Your task to perform on an android device: change text size in settings app Image 0: 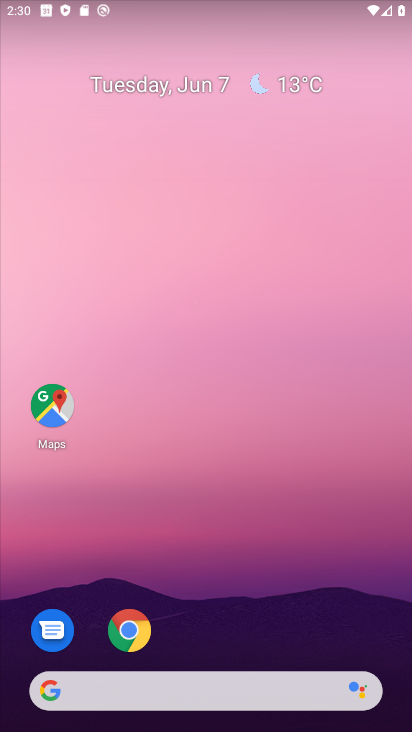
Step 0: drag from (210, 681) to (226, 146)
Your task to perform on an android device: change text size in settings app Image 1: 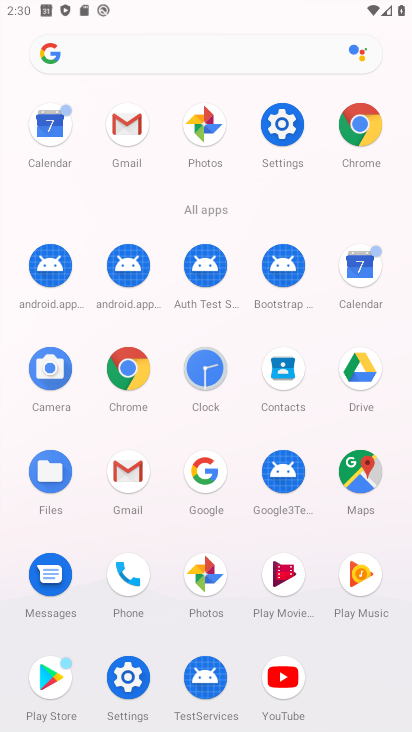
Step 1: click (283, 125)
Your task to perform on an android device: change text size in settings app Image 2: 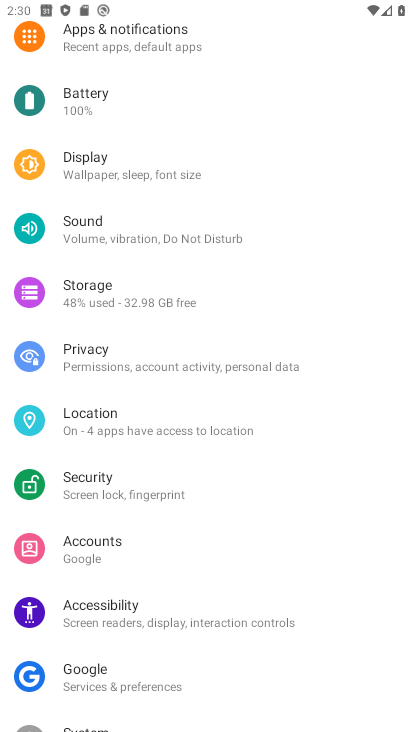
Step 2: click (79, 165)
Your task to perform on an android device: change text size in settings app Image 3: 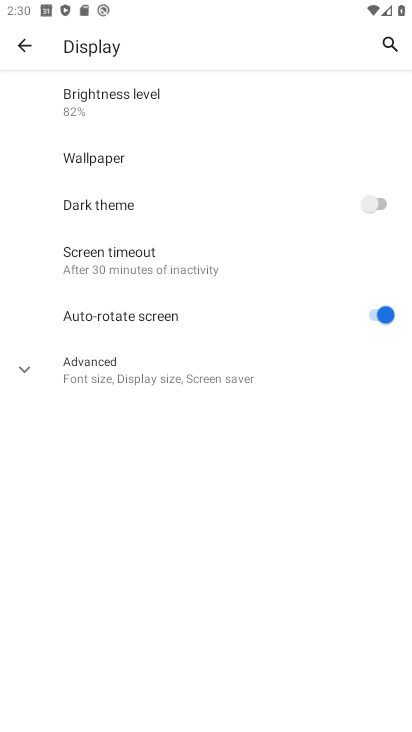
Step 3: click (124, 367)
Your task to perform on an android device: change text size in settings app Image 4: 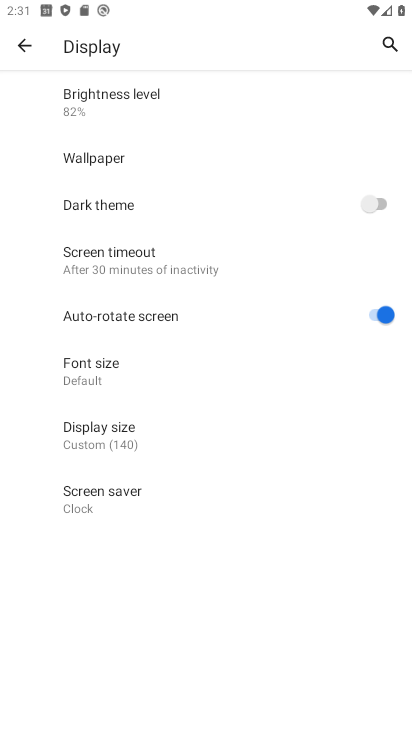
Step 4: click (98, 372)
Your task to perform on an android device: change text size in settings app Image 5: 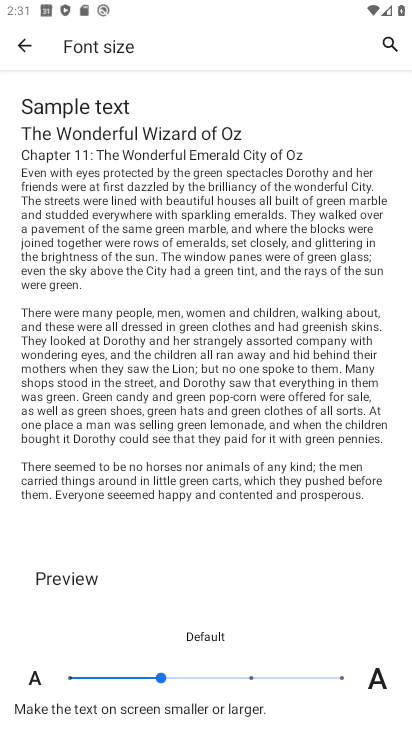
Step 5: click (76, 676)
Your task to perform on an android device: change text size in settings app Image 6: 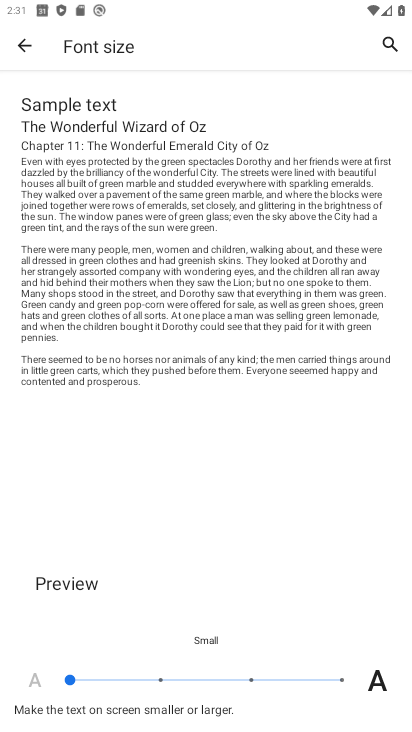
Step 6: task complete